Your task to perform on an android device: change keyboard looks Image 0: 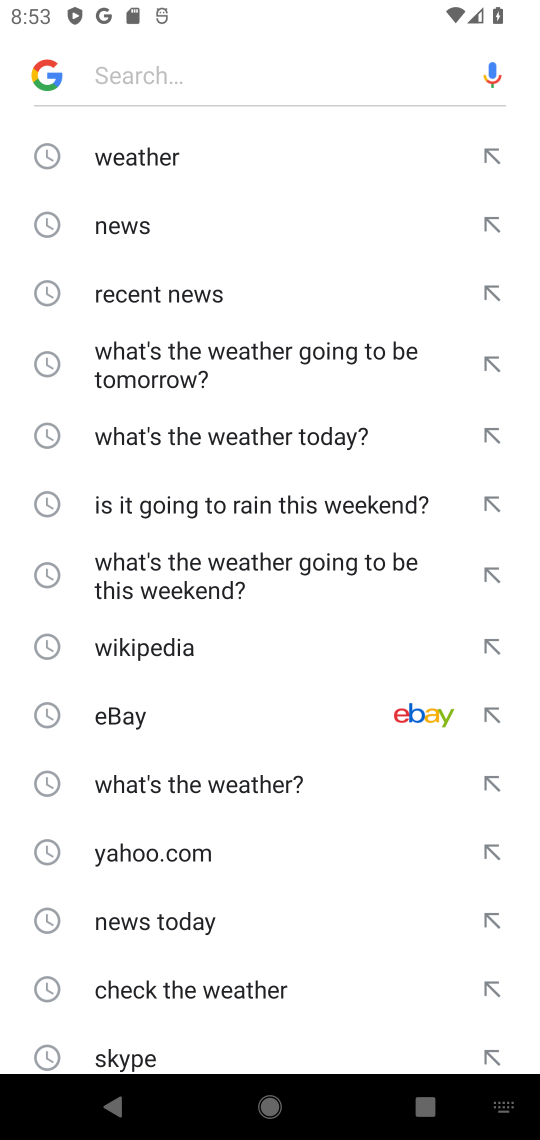
Step 0: press home button
Your task to perform on an android device: change keyboard looks Image 1: 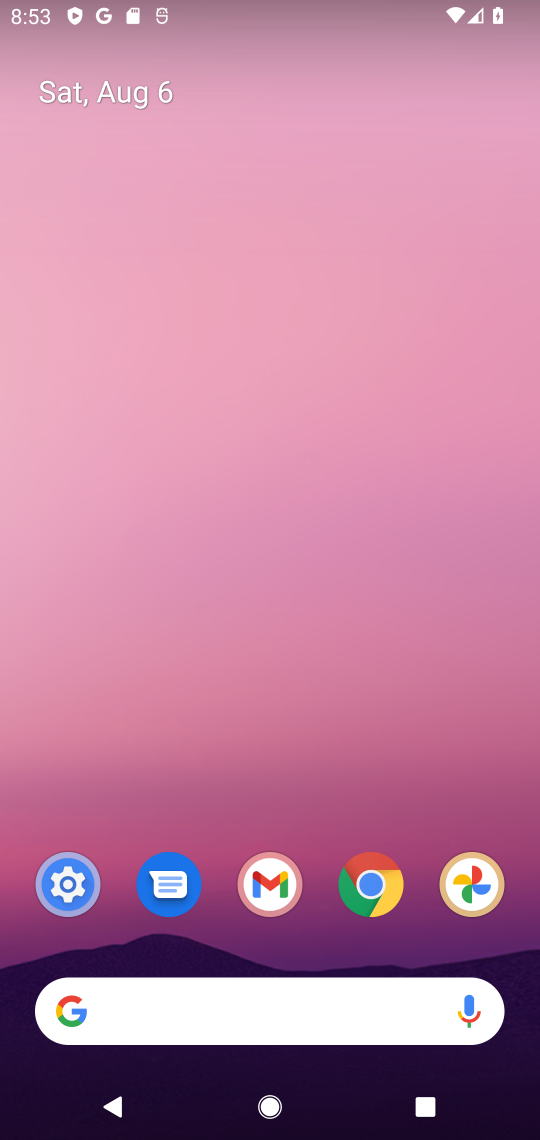
Step 1: click (67, 883)
Your task to perform on an android device: change keyboard looks Image 2: 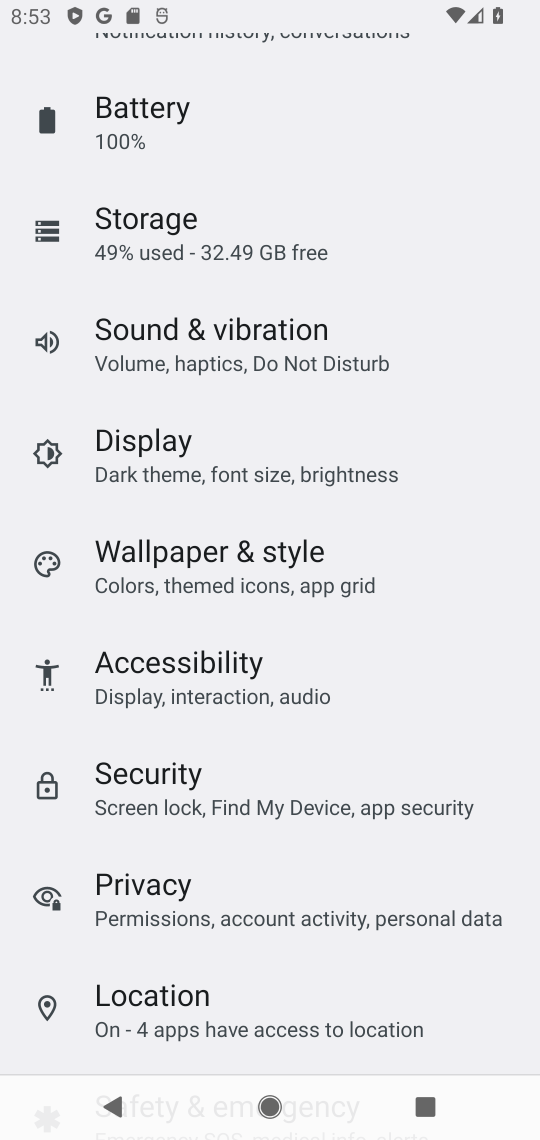
Step 2: drag from (460, 985) to (434, 230)
Your task to perform on an android device: change keyboard looks Image 3: 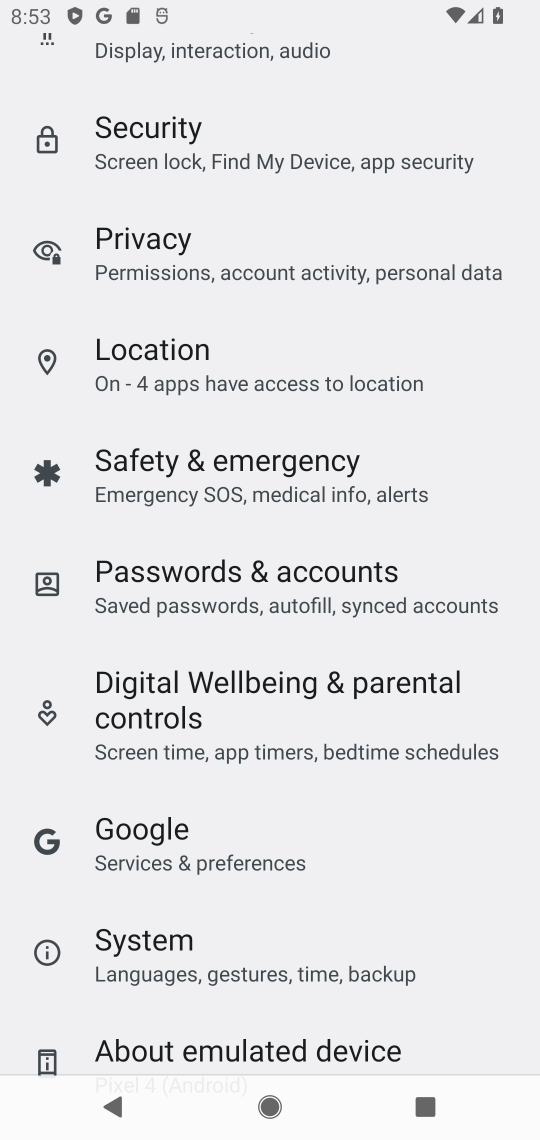
Step 3: drag from (404, 940) to (440, 404)
Your task to perform on an android device: change keyboard looks Image 4: 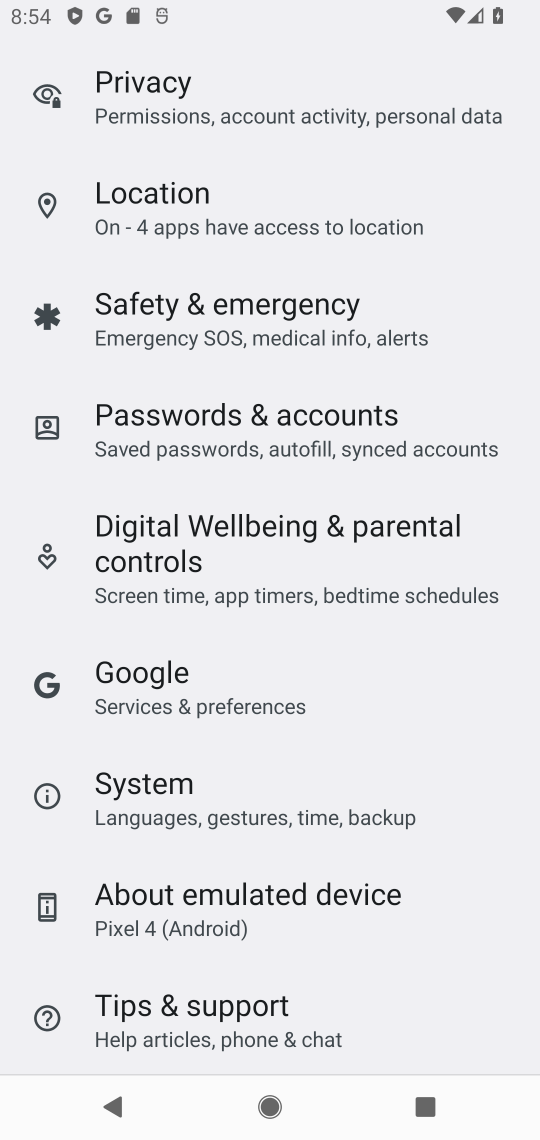
Step 4: click (155, 802)
Your task to perform on an android device: change keyboard looks Image 5: 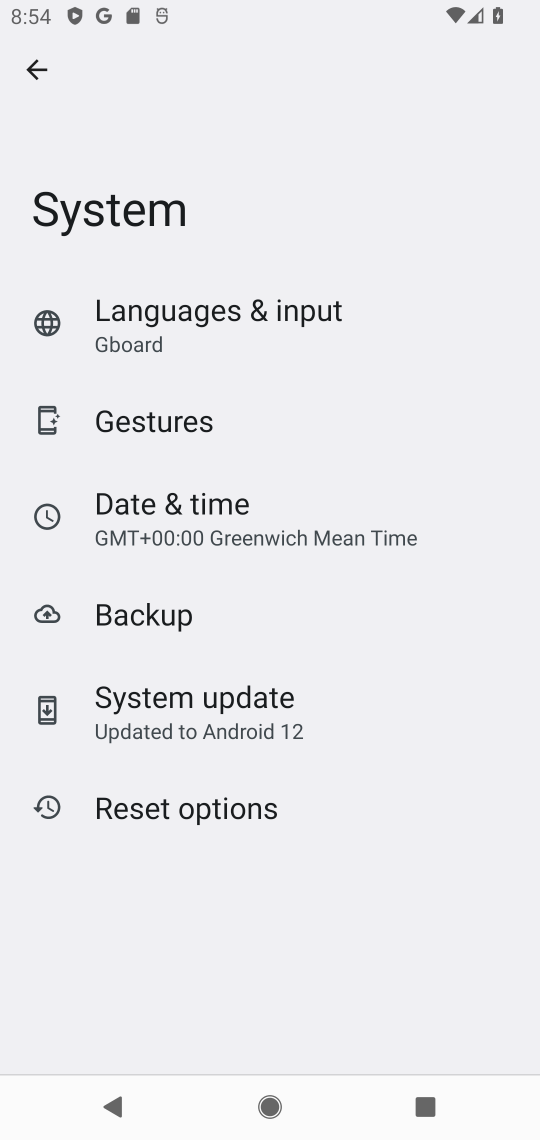
Step 5: click (140, 301)
Your task to perform on an android device: change keyboard looks Image 6: 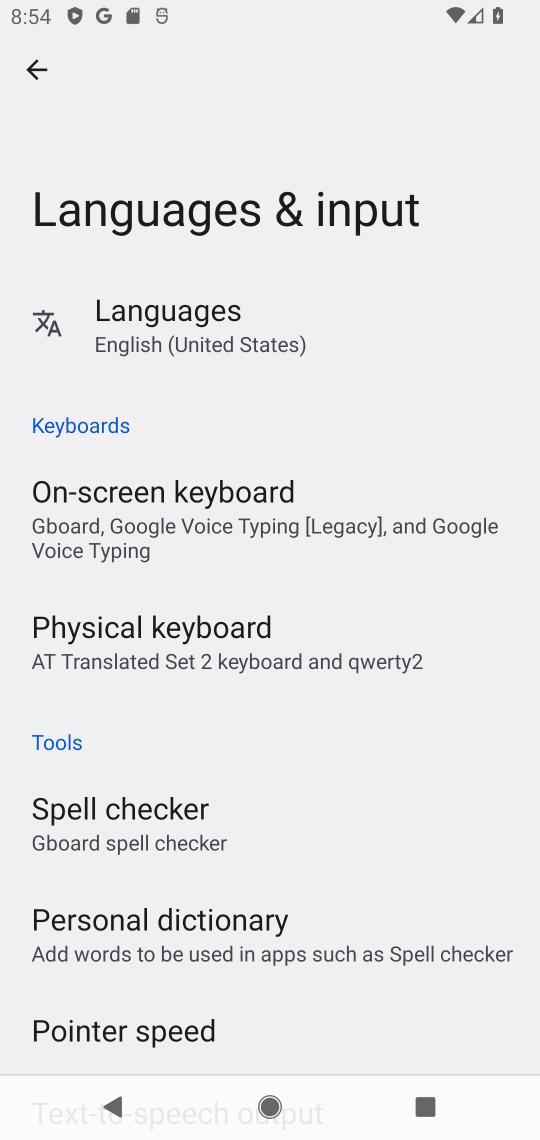
Step 6: click (171, 636)
Your task to perform on an android device: change keyboard looks Image 7: 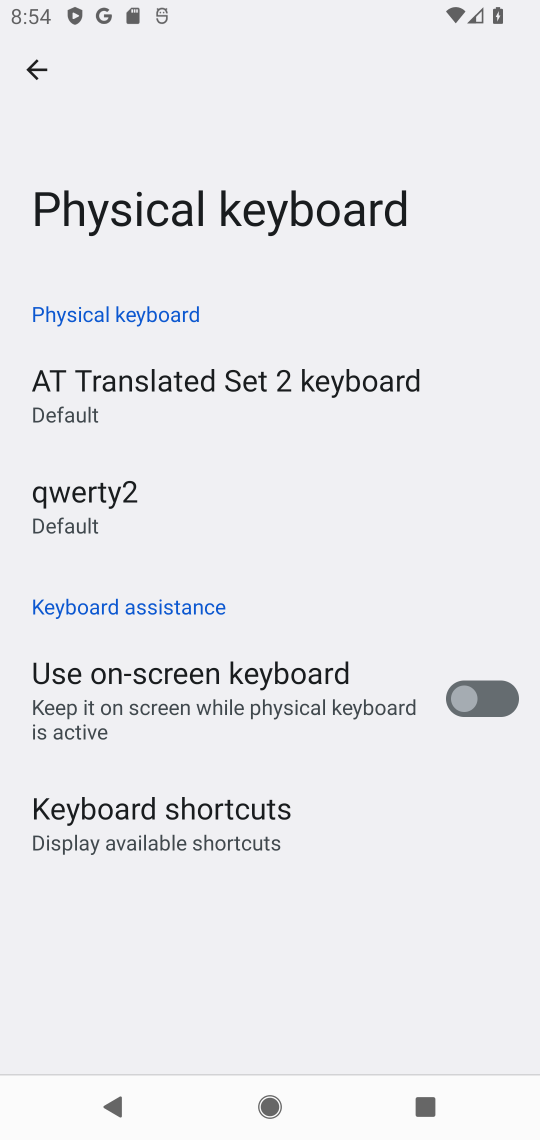
Step 7: click (92, 516)
Your task to perform on an android device: change keyboard looks Image 8: 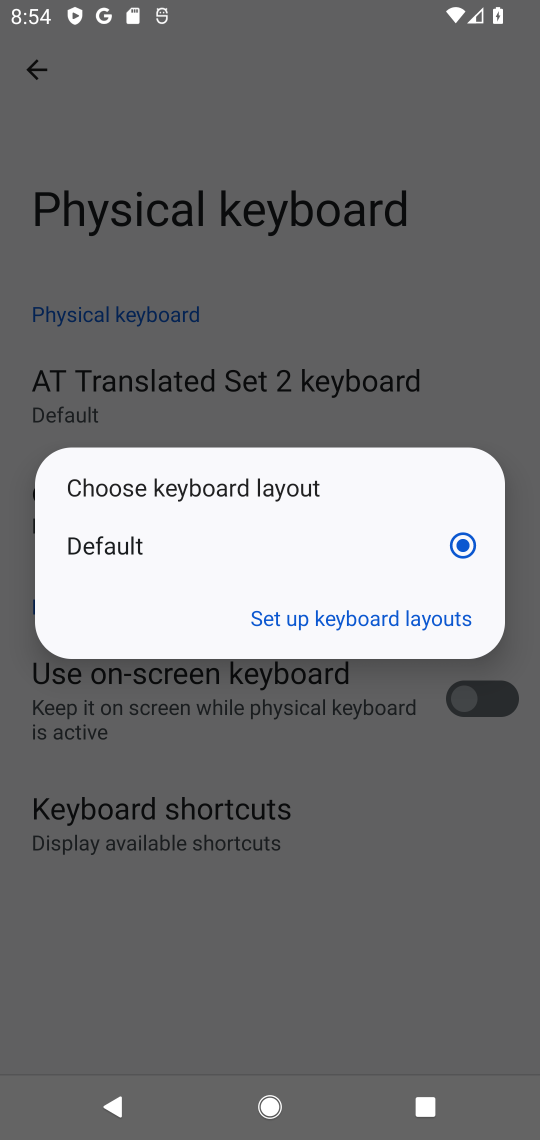
Step 8: click (349, 623)
Your task to perform on an android device: change keyboard looks Image 9: 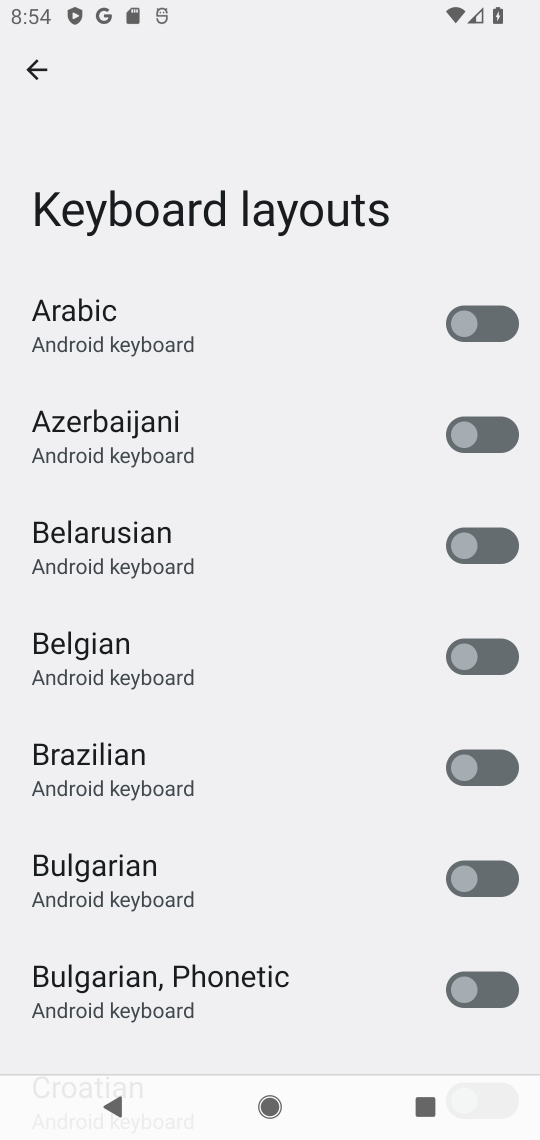
Step 9: drag from (367, 947) to (369, 382)
Your task to perform on an android device: change keyboard looks Image 10: 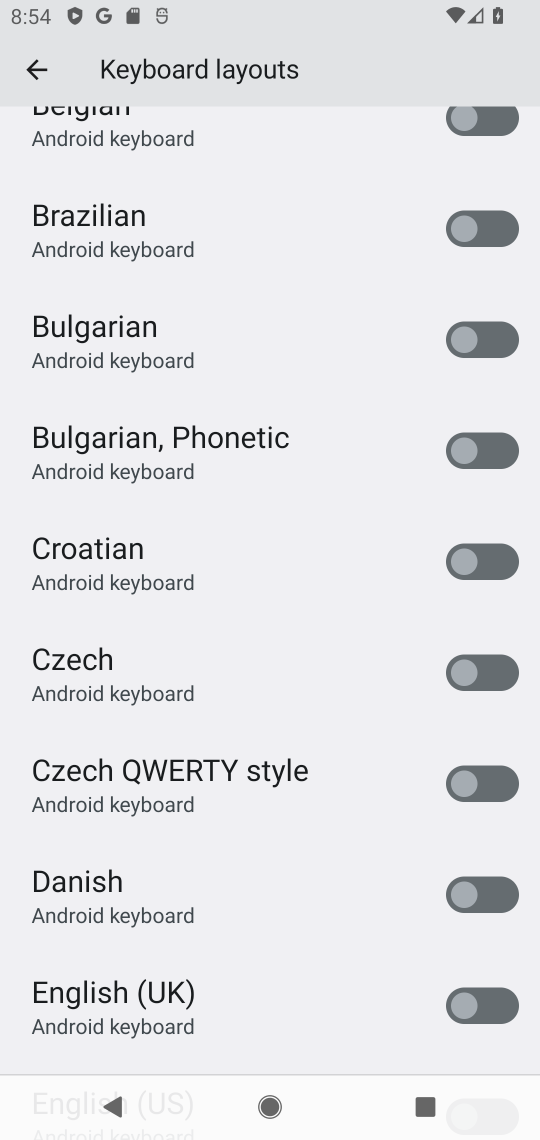
Step 10: click (509, 1018)
Your task to perform on an android device: change keyboard looks Image 11: 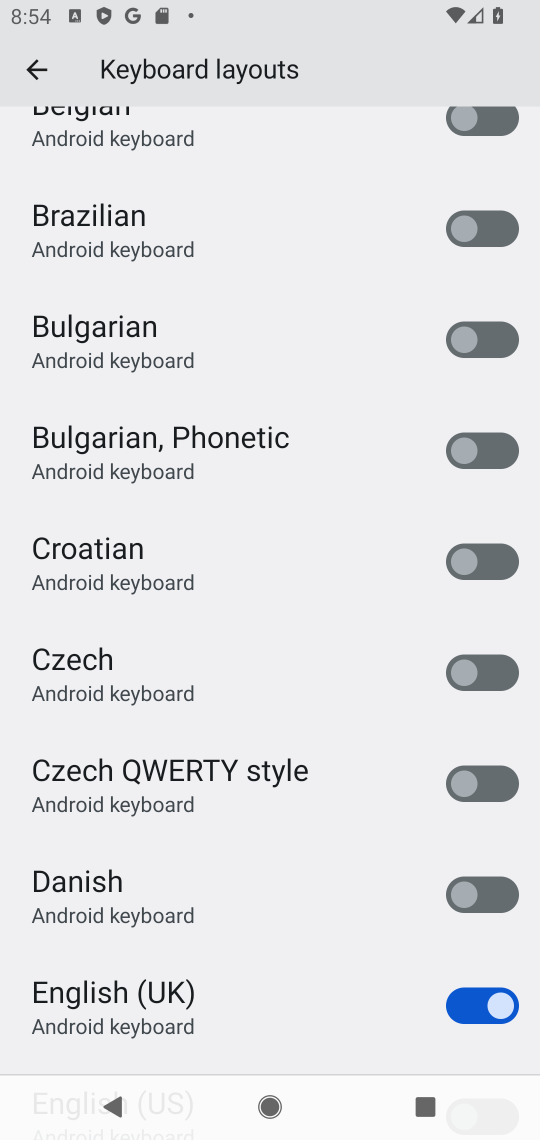
Step 11: task complete